Your task to perform on an android device: change the clock style Image 0: 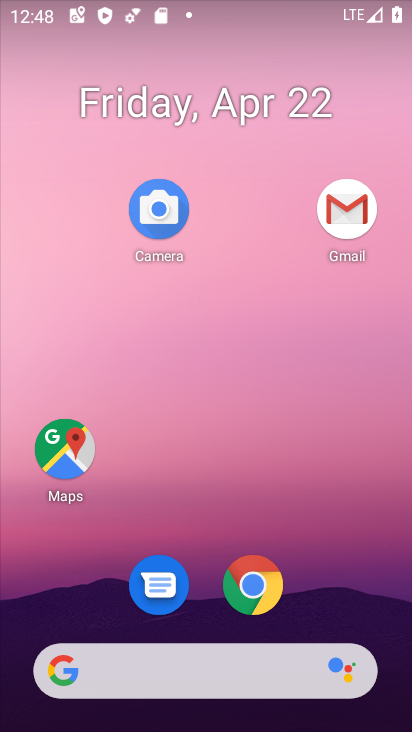
Step 0: drag from (345, 540) to (317, 105)
Your task to perform on an android device: change the clock style Image 1: 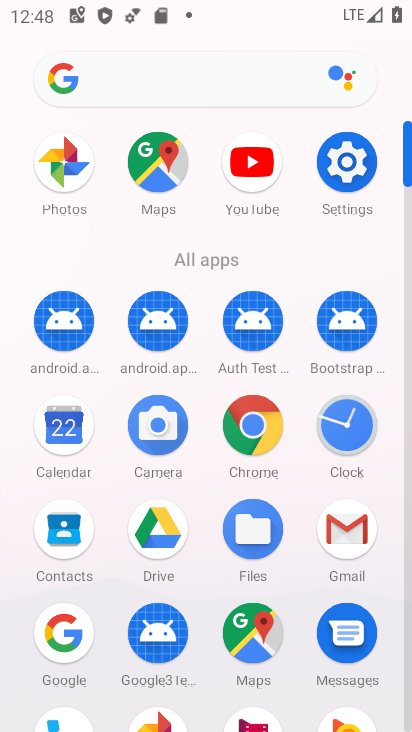
Step 1: click (352, 435)
Your task to perform on an android device: change the clock style Image 2: 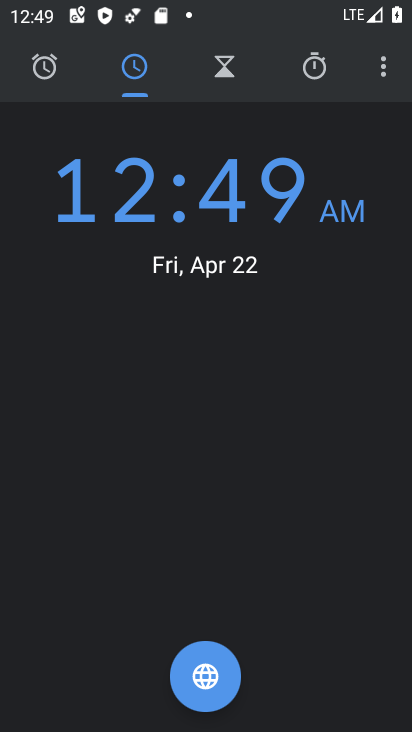
Step 2: click (386, 71)
Your task to perform on an android device: change the clock style Image 3: 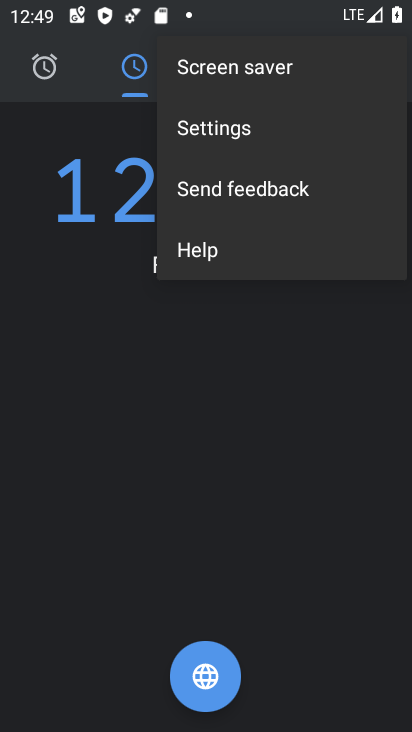
Step 3: click (318, 125)
Your task to perform on an android device: change the clock style Image 4: 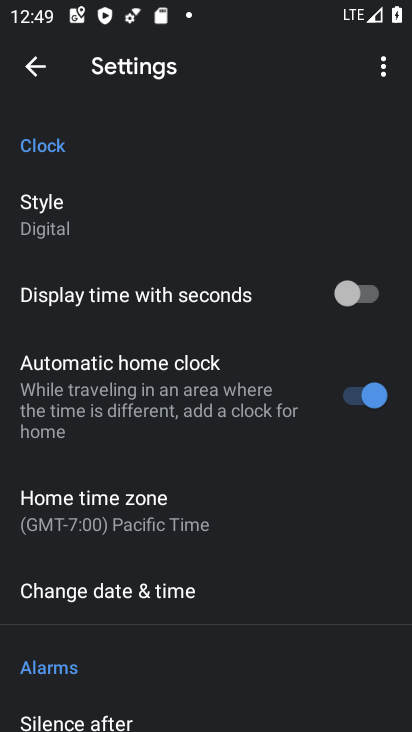
Step 4: click (165, 214)
Your task to perform on an android device: change the clock style Image 5: 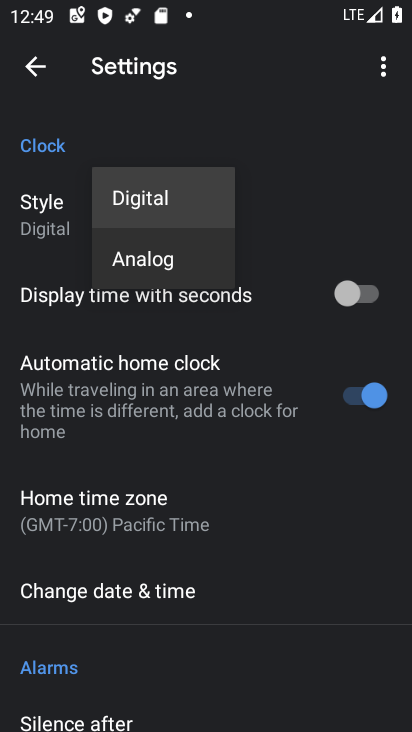
Step 5: click (167, 249)
Your task to perform on an android device: change the clock style Image 6: 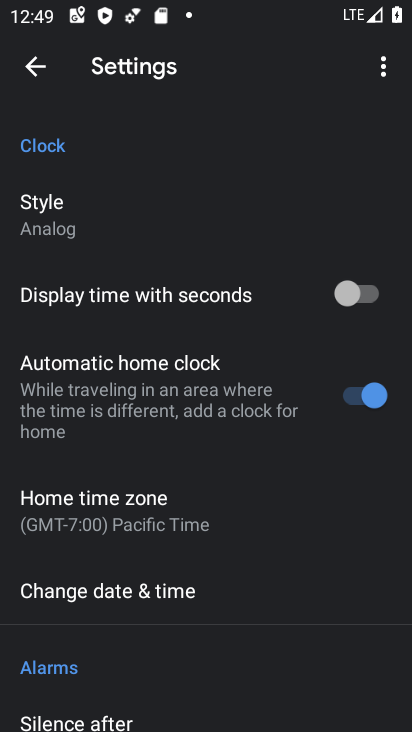
Step 6: task complete